Your task to perform on an android device: allow notifications from all sites in the chrome app Image 0: 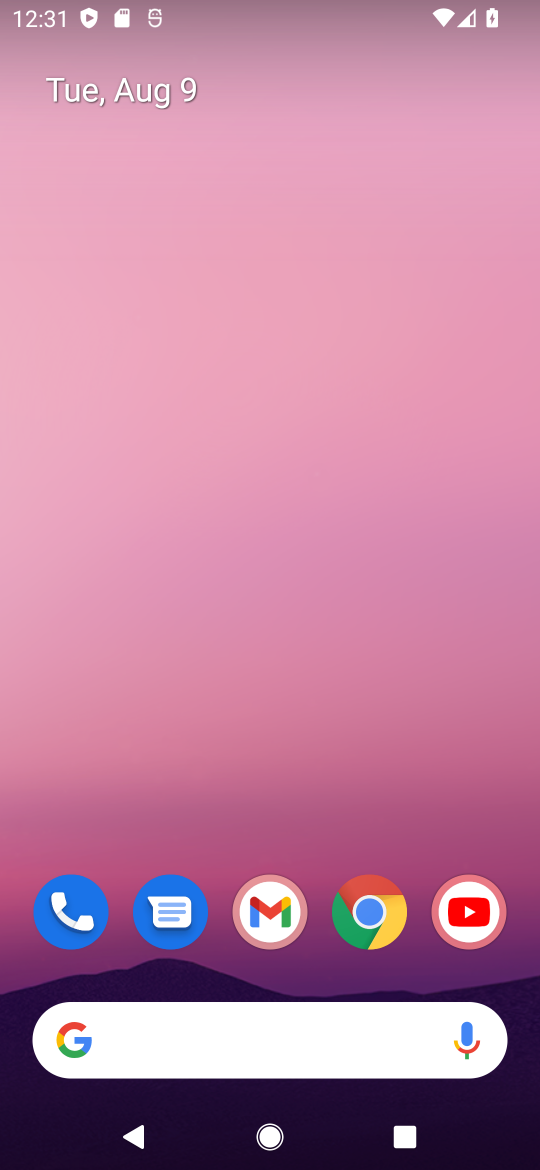
Step 0: click (355, 917)
Your task to perform on an android device: allow notifications from all sites in the chrome app Image 1: 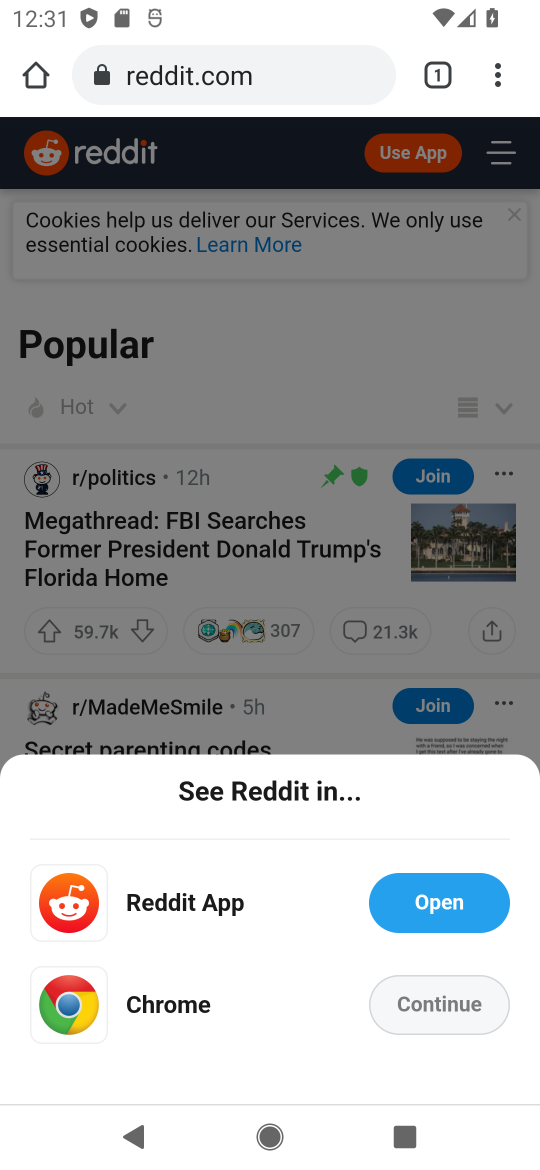
Step 1: click (496, 77)
Your task to perform on an android device: allow notifications from all sites in the chrome app Image 2: 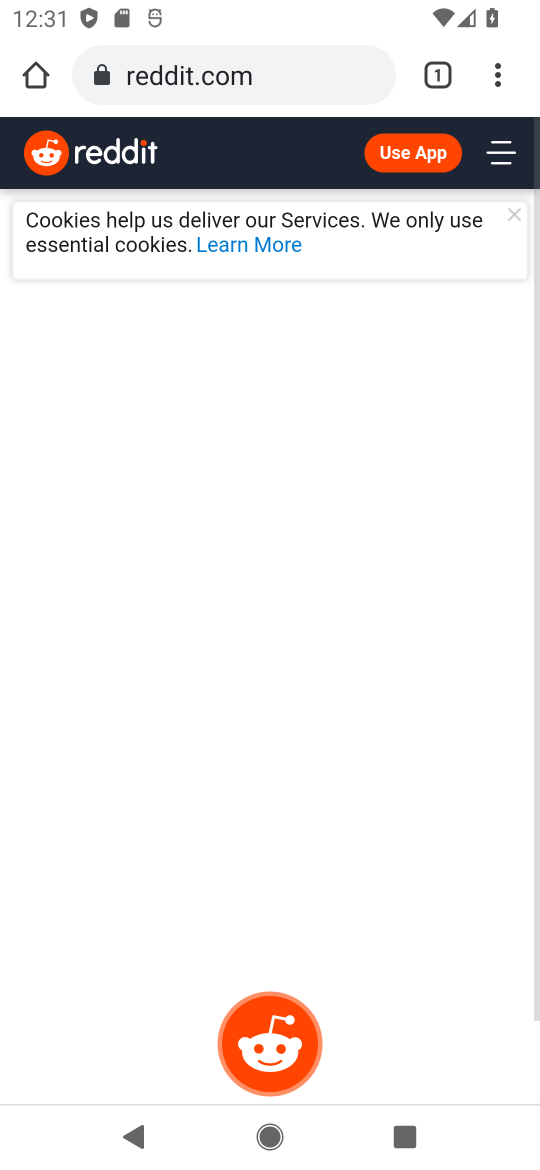
Step 2: click (491, 76)
Your task to perform on an android device: allow notifications from all sites in the chrome app Image 3: 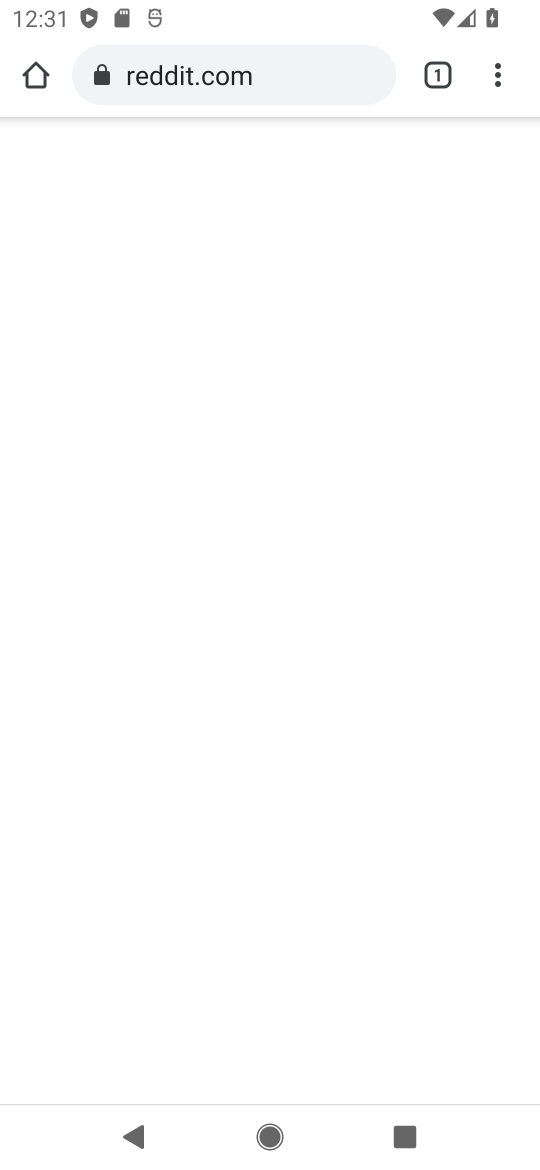
Step 3: click (497, 83)
Your task to perform on an android device: allow notifications from all sites in the chrome app Image 4: 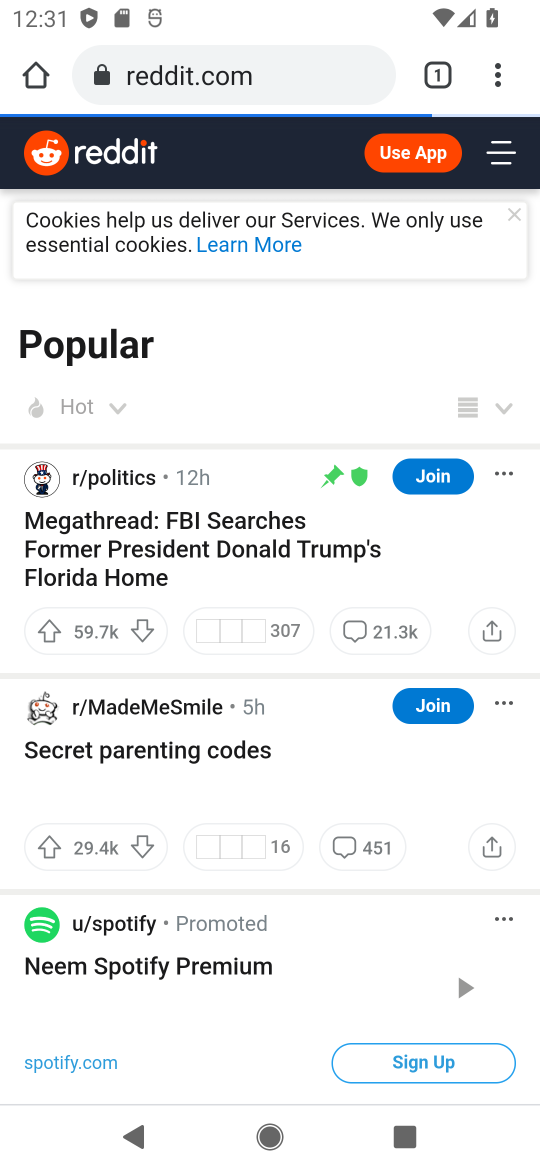
Step 4: click (491, 80)
Your task to perform on an android device: allow notifications from all sites in the chrome app Image 5: 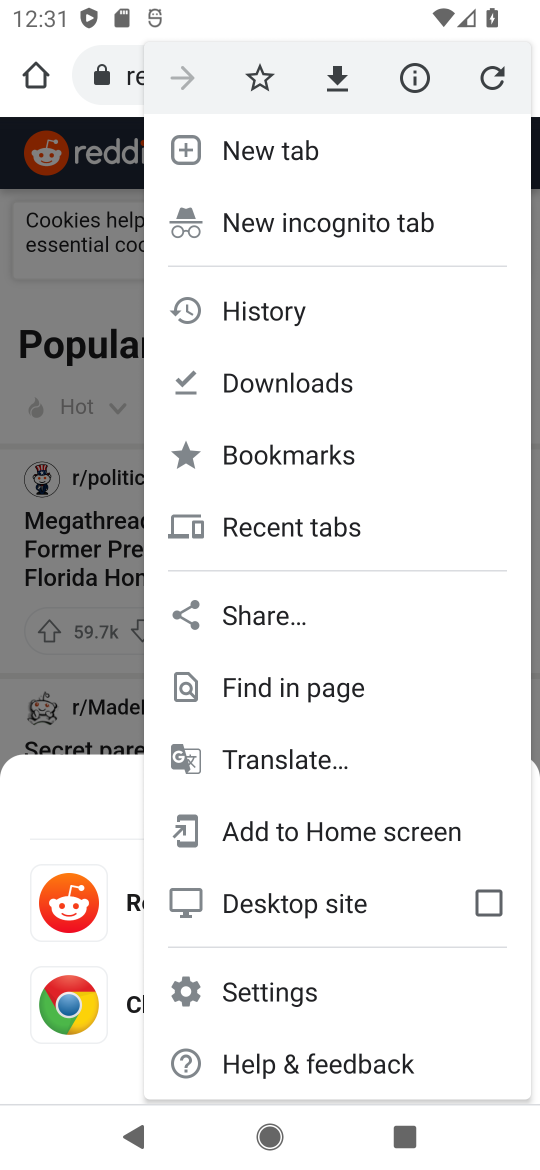
Step 5: click (283, 989)
Your task to perform on an android device: allow notifications from all sites in the chrome app Image 6: 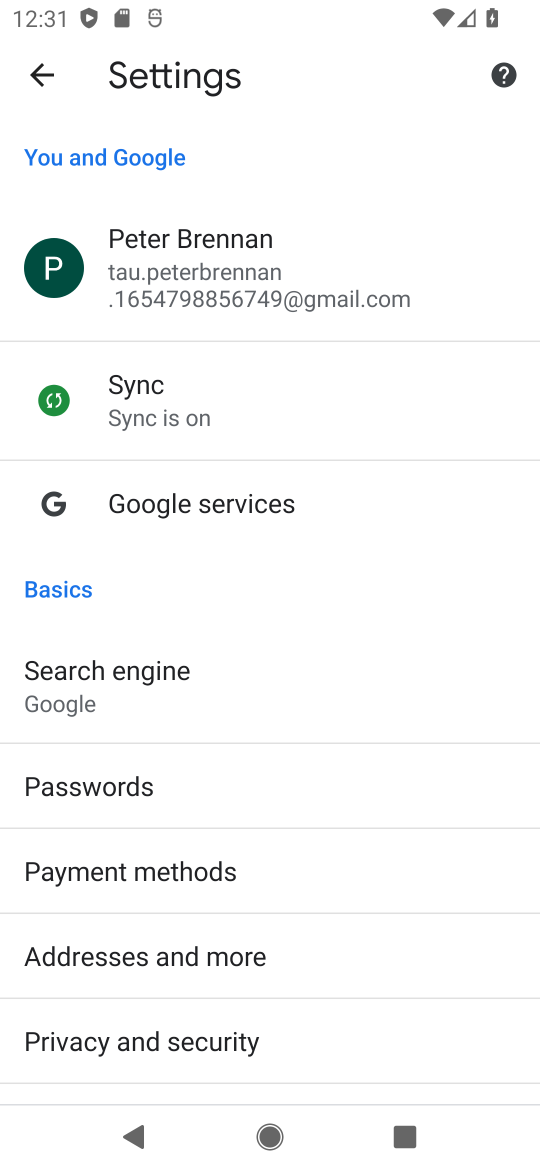
Step 6: drag from (181, 1053) to (166, 352)
Your task to perform on an android device: allow notifications from all sites in the chrome app Image 7: 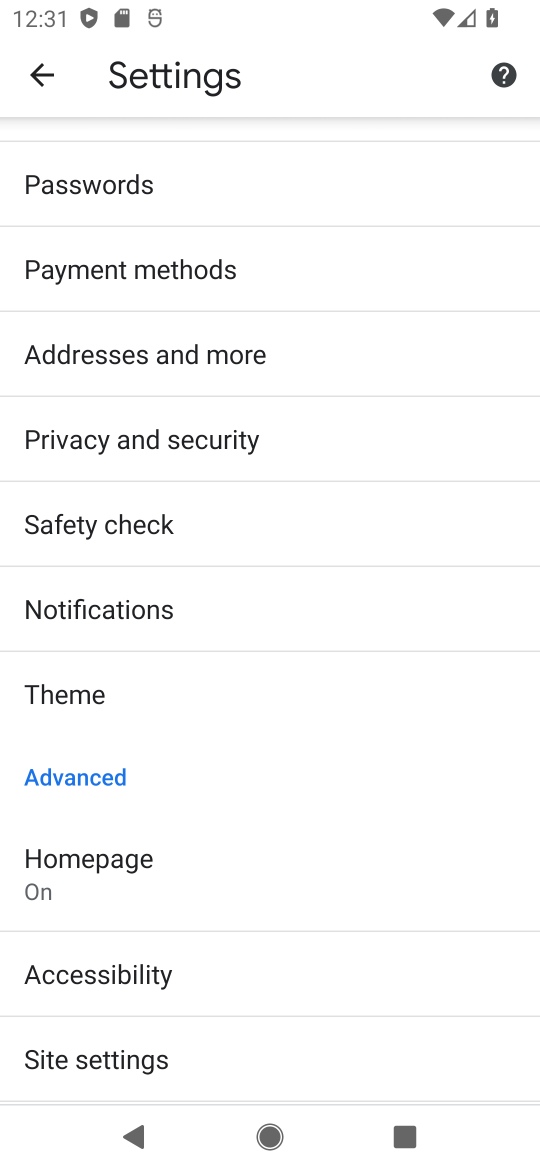
Step 7: click (37, 1055)
Your task to perform on an android device: allow notifications from all sites in the chrome app Image 8: 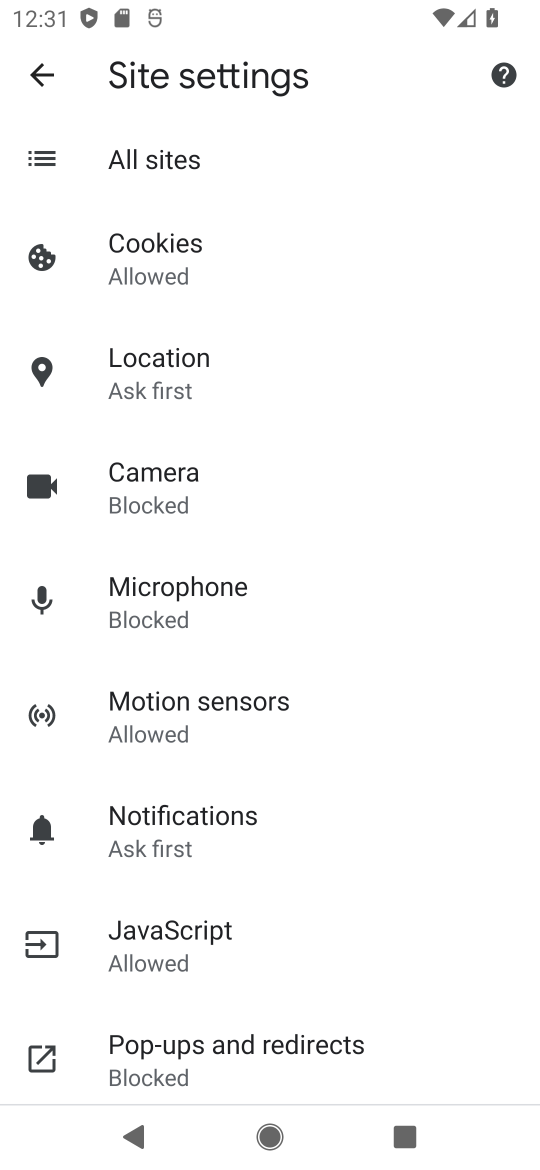
Step 8: click (172, 837)
Your task to perform on an android device: allow notifications from all sites in the chrome app Image 9: 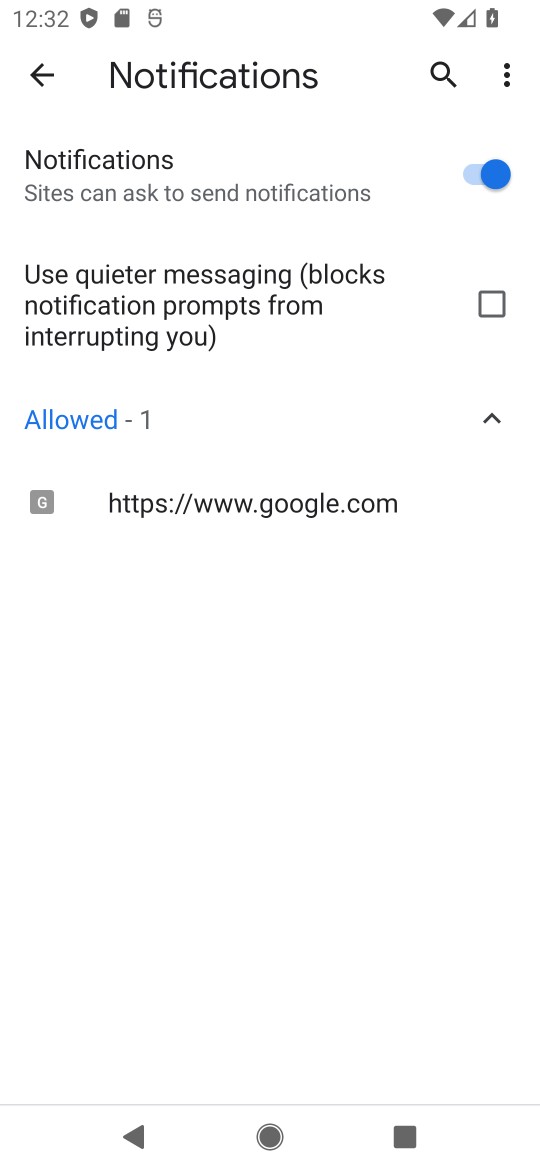
Step 9: task complete